Your task to perform on an android device: Go to notification settings Image 0: 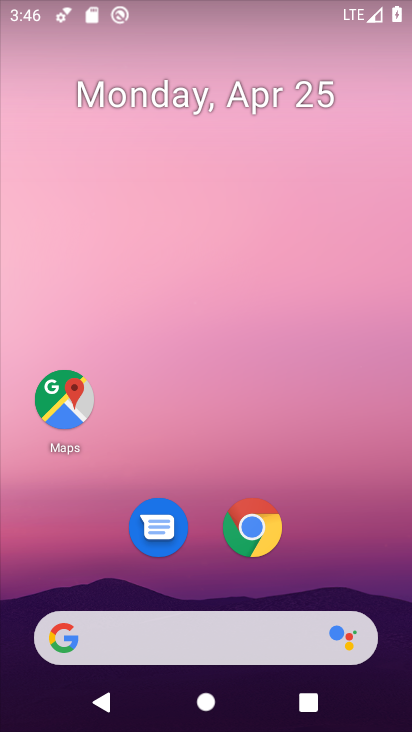
Step 0: drag from (383, 613) to (317, 12)
Your task to perform on an android device: Go to notification settings Image 1: 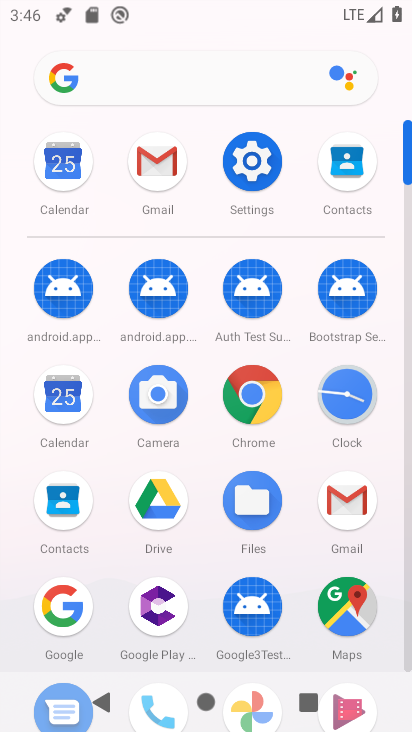
Step 1: click (409, 652)
Your task to perform on an android device: Go to notification settings Image 2: 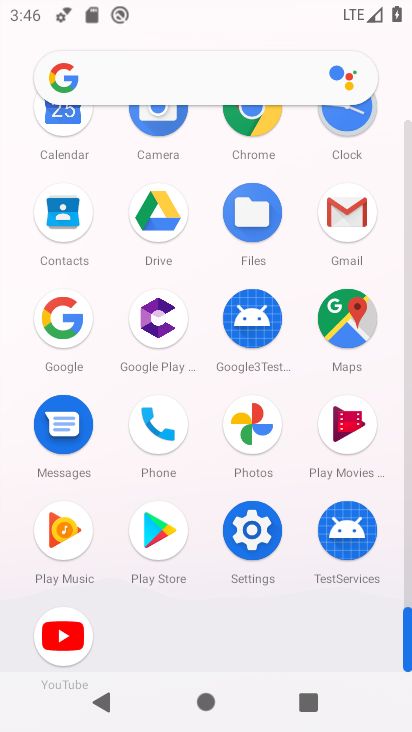
Step 2: click (251, 526)
Your task to perform on an android device: Go to notification settings Image 3: 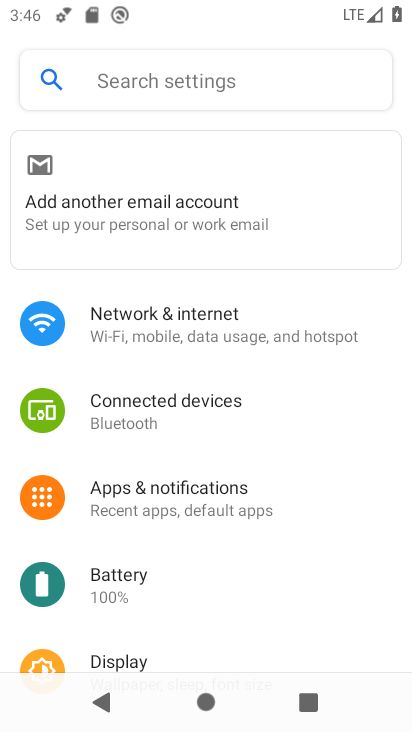
Step 3: click (145, 494)
Your task to perform on an android device: Go to notification settings Image 4: 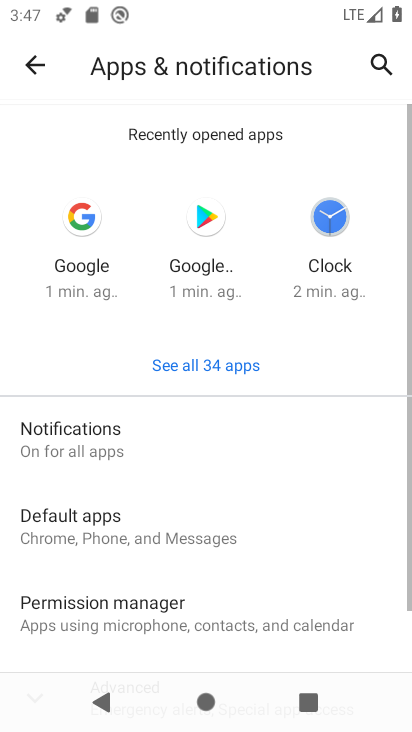
Step 4: drag from (259, 595) to (283, 316)
Your task to perform on an android device: Go to notification settings Image 5: 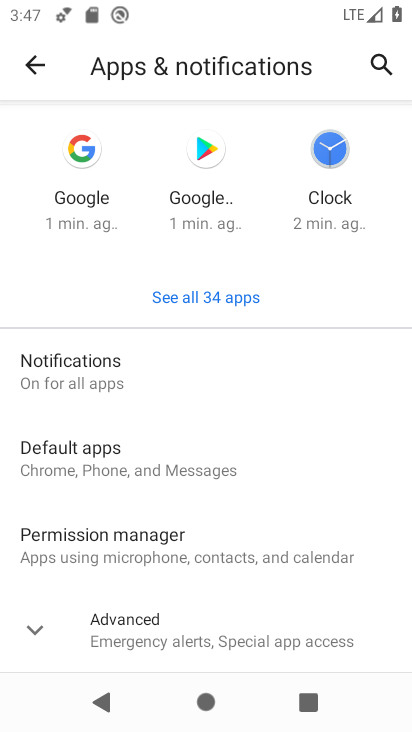
Step 5: click (32, 621)
Your task to perform on an android device: Go to notification settings Image 6: 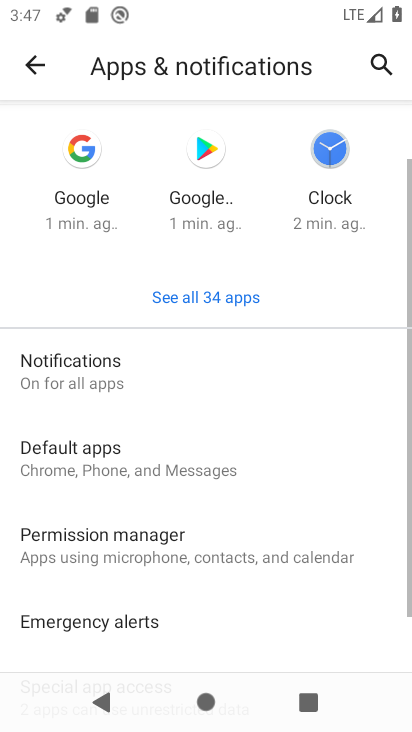
Step 6: click (81, 368)
Your task to perform on an android device: Go to notification settings Image 7: 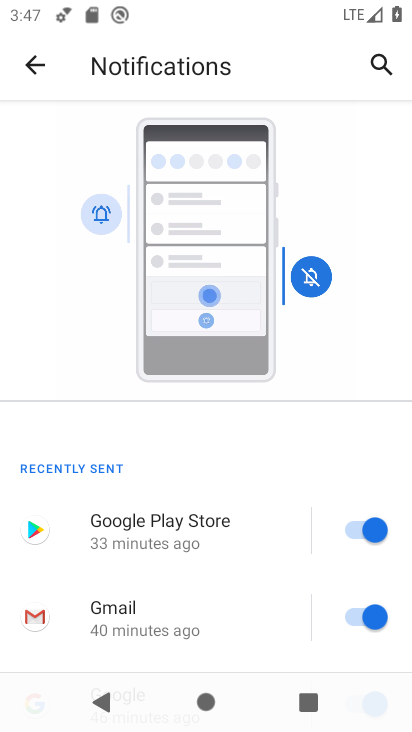
Step 7: drag from (282, 629) to (222, 30)
Your task to perform on an android device: Go to notification settings Image 8: 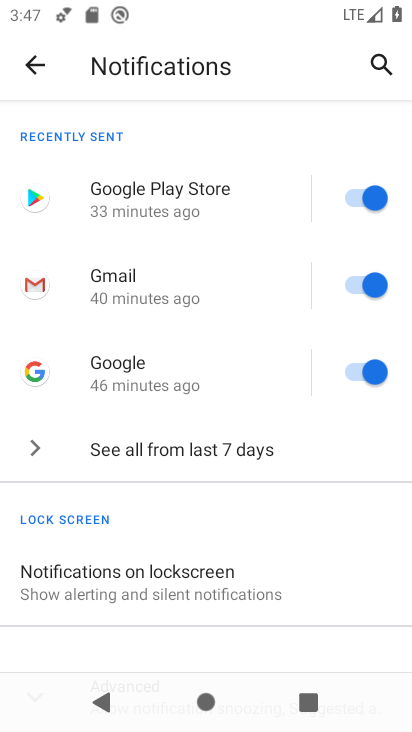
Step 8: drag from (276, 551) to (244, 100)
Your task to perform on an android device: Go to notification settings Image 9: 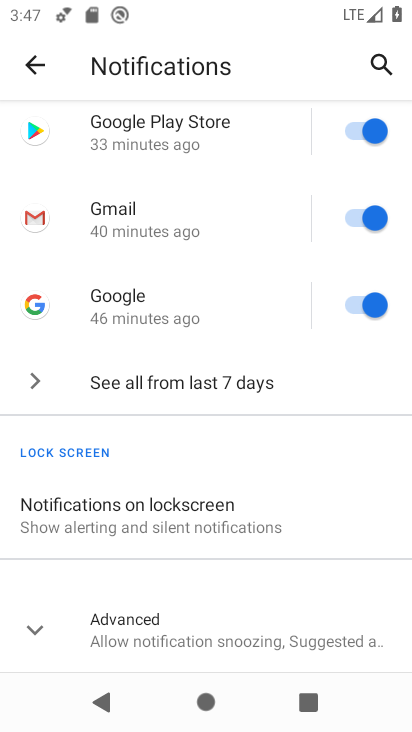
Step 9: click (28, 629)
Your task to perform on an android device: Go to notification settings Image 10: 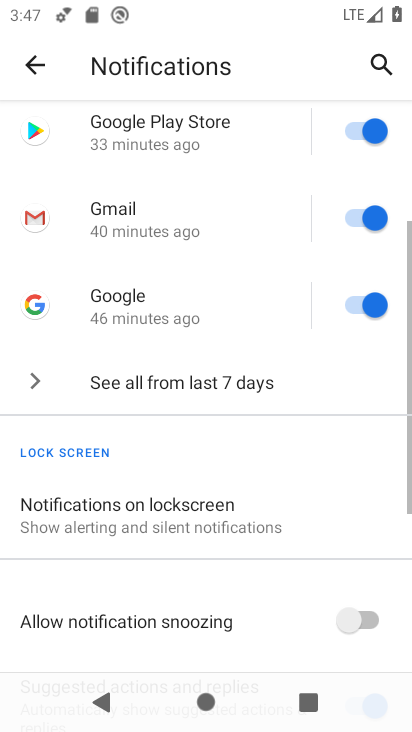
Step 10: drag from (253, 626) to (246, 184)
Your task to perform on an android device: Go to notification settings Image 11: 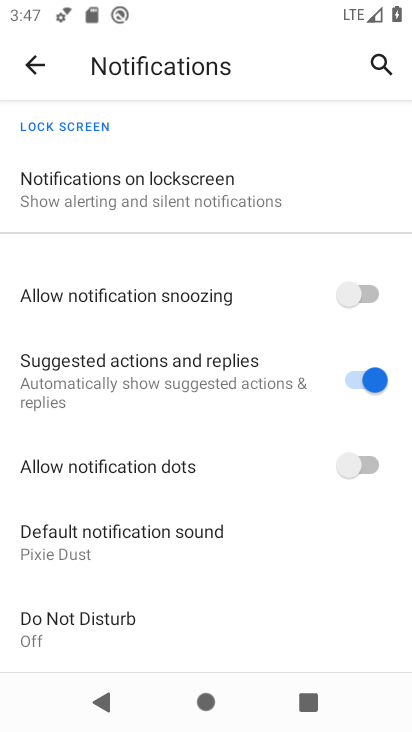
Step 11: click (251, 217)
Your task to perform on an android device: Go to notification settings Image 12: 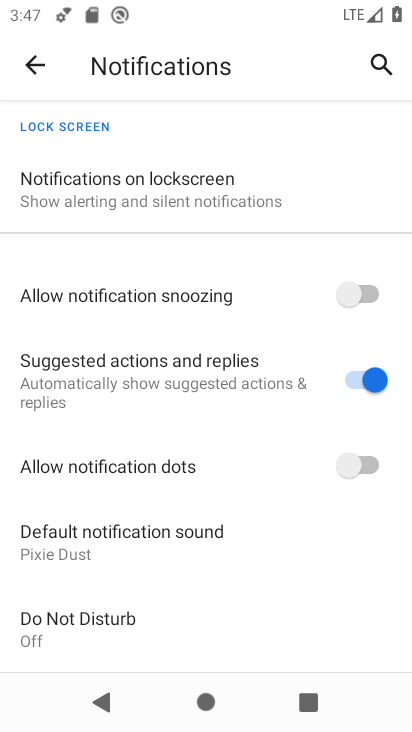
Step 12: task complete